Your task to perform on an android device: Open privacy settings Image 0: 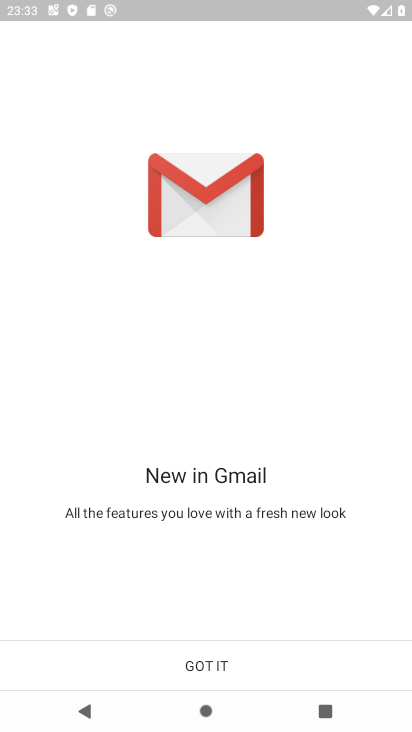
Step 0: press home button
Your task to perform on an android device: Open privacy settings Image 1: 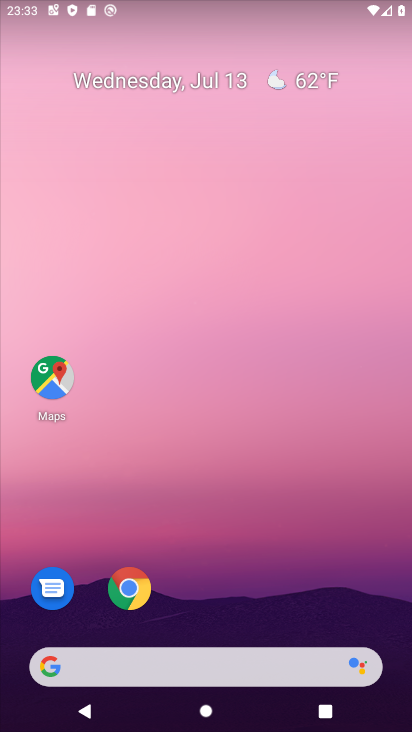
Step 1: drag from (213, 645) to (215, 375)
Your task to perform on an android device: Open privacy settings Image 2: 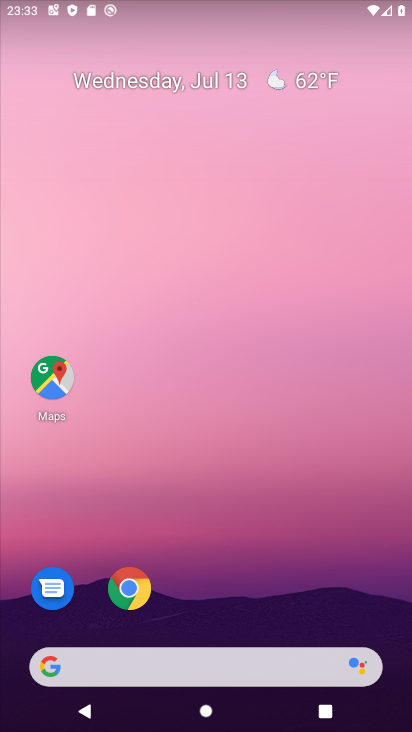
Step 2: click (209, 365)
Your task to perform on an android device: Open privacy settings Image 3: 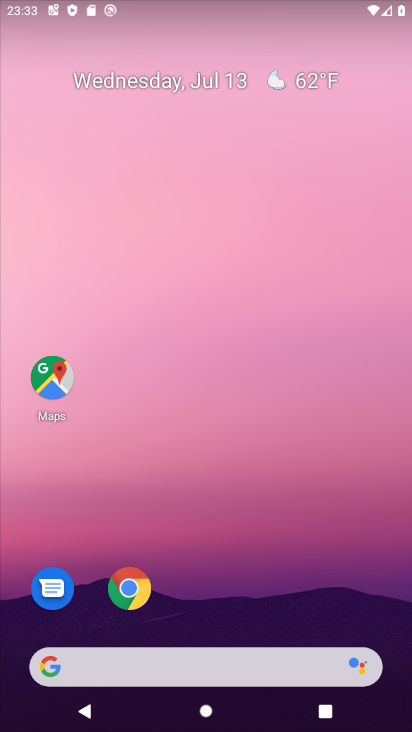
Step 3: drag from (211, 637) to (210, 315)
Your task to perform on an android device: Open privacy settings Image 4: 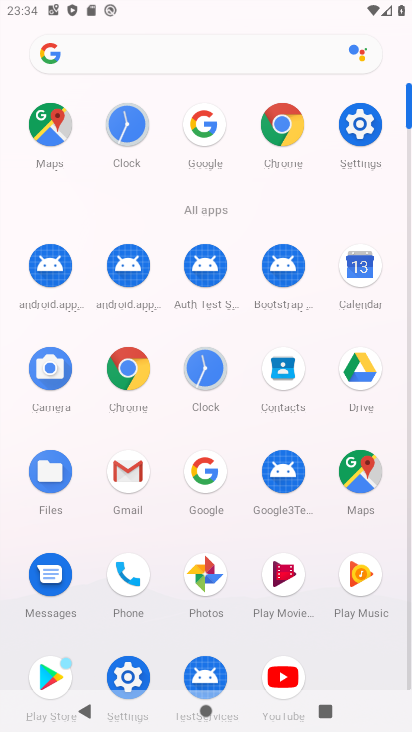
Step 4: click (351, 132)
Your task to perform on an android device: Open privacy settings Image 5: 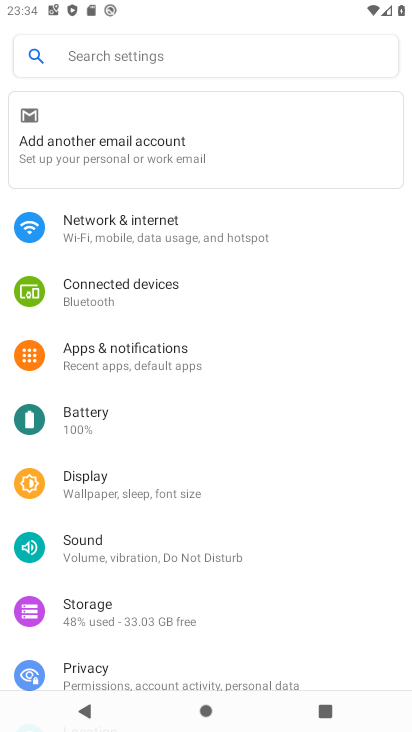
Step 5: click (131, 671)
Your task to perform on an android device: Open privacy settings Image 6: 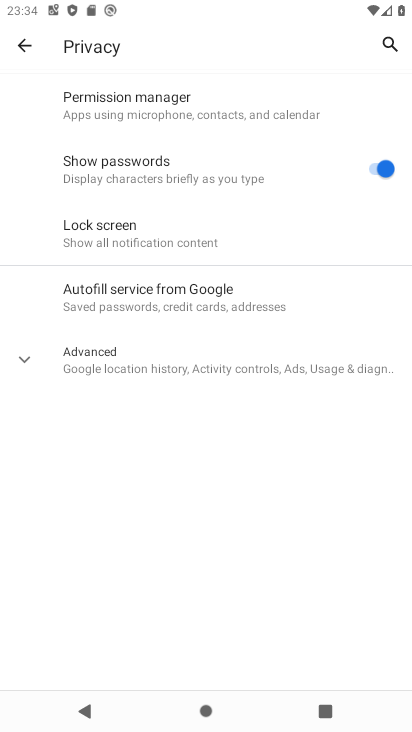
Step 6: click (120, 368)
Your task to perform on an android device: Open privacy settings Image 7: 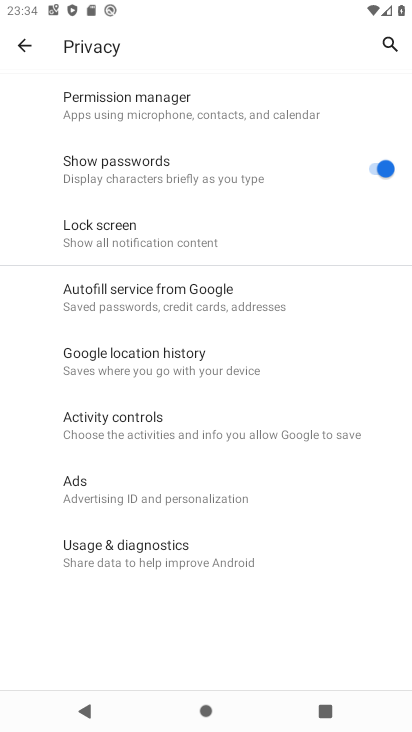
Step 7: task complete